Your task to perform on an android device: Open Chrome and go to the settings page Image 0: 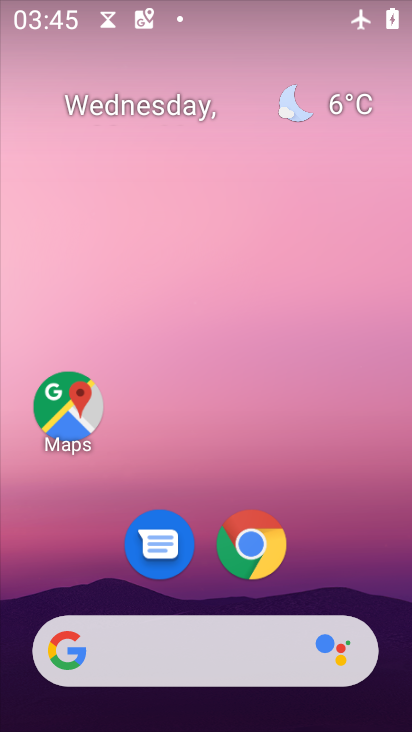
Step 0: click (261, 537)
Your task to perform on an android device: Open Chrome and go to the settings page Image 1: 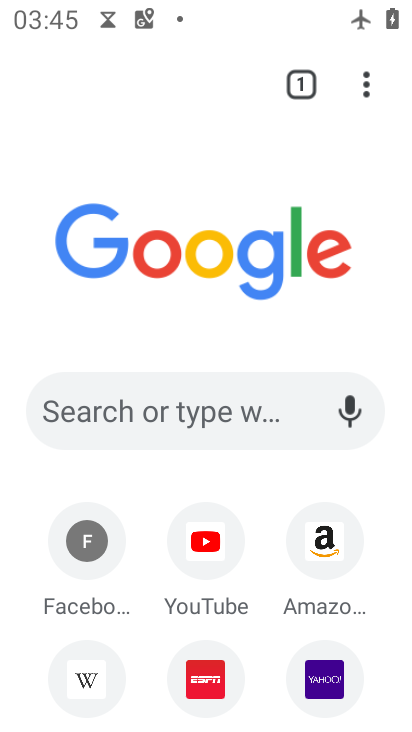
Step 1: click (358, 99)
Your task to perform on an android device: Open Chrome and go to the settings page Image 2: 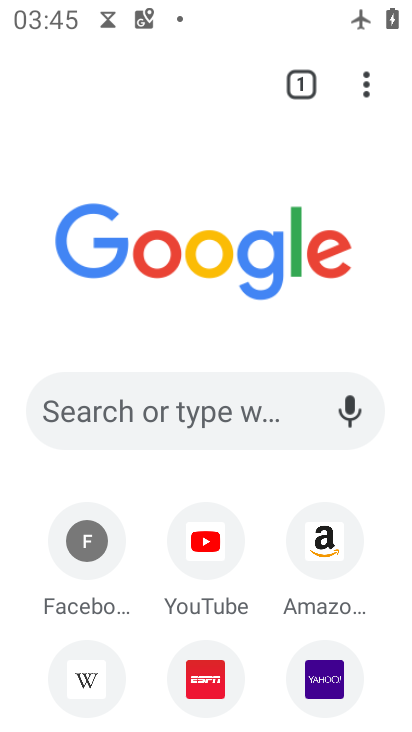
Step 2: click (370, 92)
Your task to perform on an android device: Open Chrome and go to the settings page Image 3: 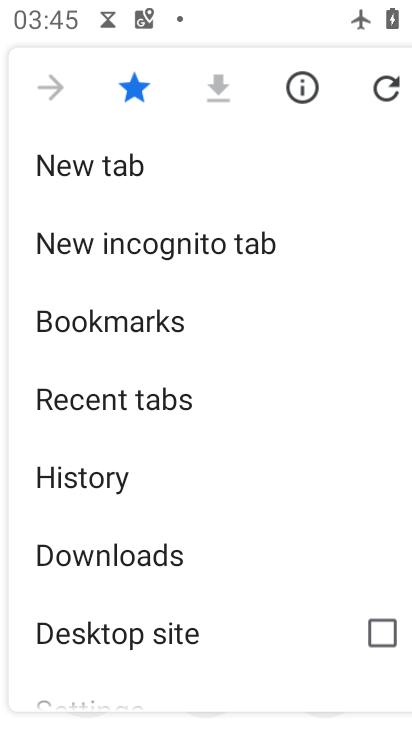
Step 3: drag from (158, 649) to (196, 281)
Your task to perform on an android device: Open Chrome and go to the settings page Image 4: 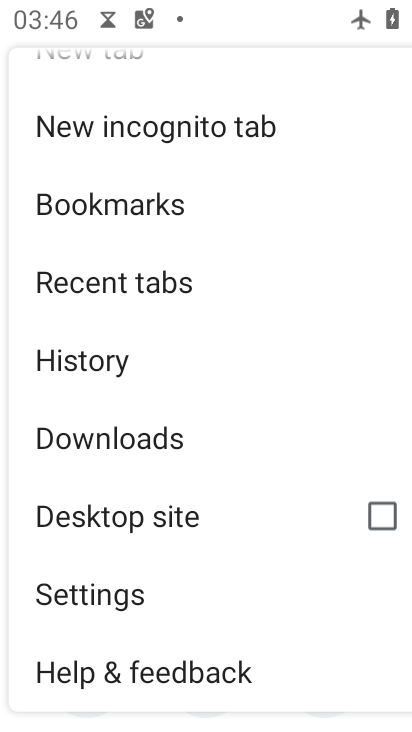
Step 4: click (94, 609)
Your task to perform on an android device: Open Chrome and go to the settings page Image 5: 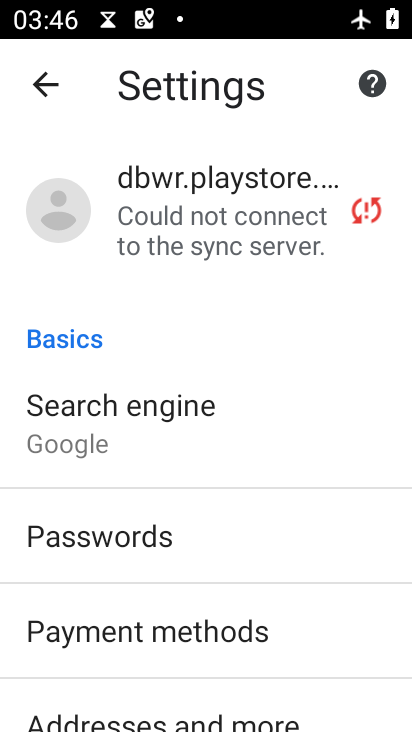
Step 5: task complete